Your task to perform on an android device: set an alarm Image 0: 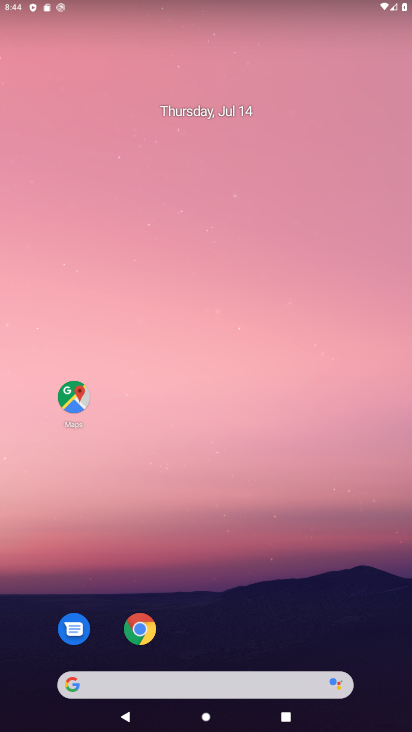
Step 0: drag from (244, 621) to (244, 28)
Your task to perform on an android device: set an alarm Image 1: 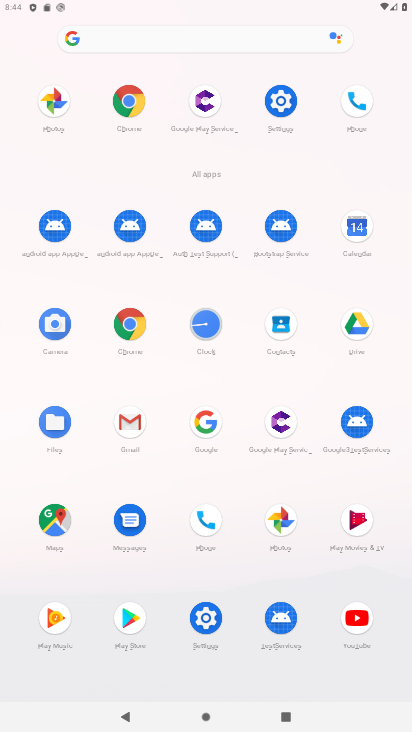
Step 1: click (201, 317)
Your task to perform on an android device: set an alarm Image 2: 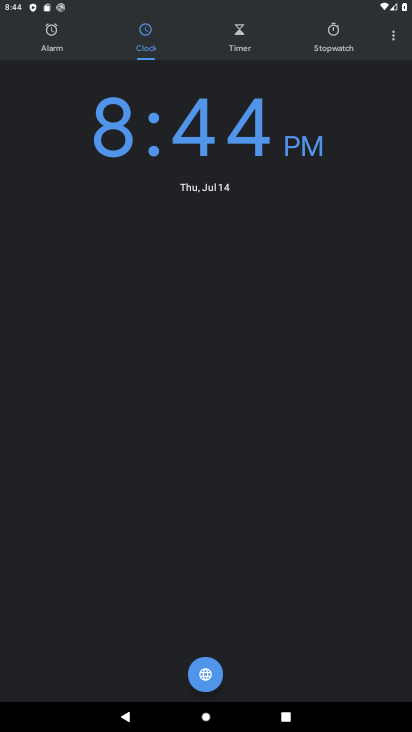
Step 2: click (54, 38)
Your task to perform on an android device: set an alarm Image 3: 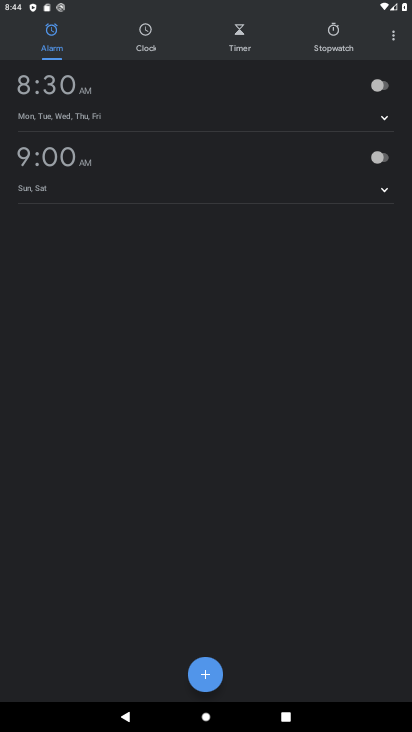
Step 3: click (203, 678)
Your task to perform on an android device: set an alarm Image 4: 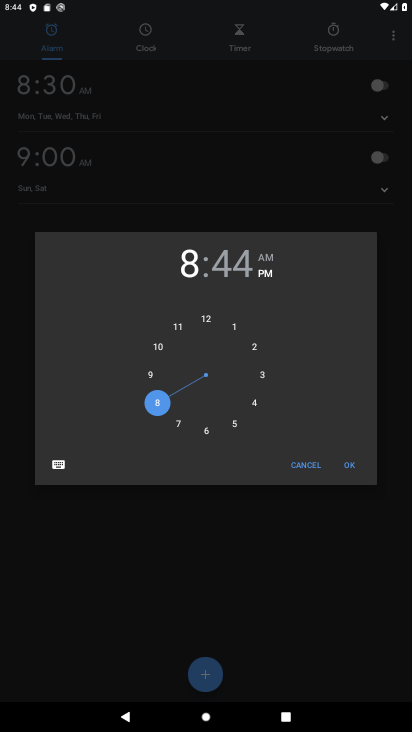
Step 4: click (353, 469)
Your task to perform on an android device: set an alarm Image 5: 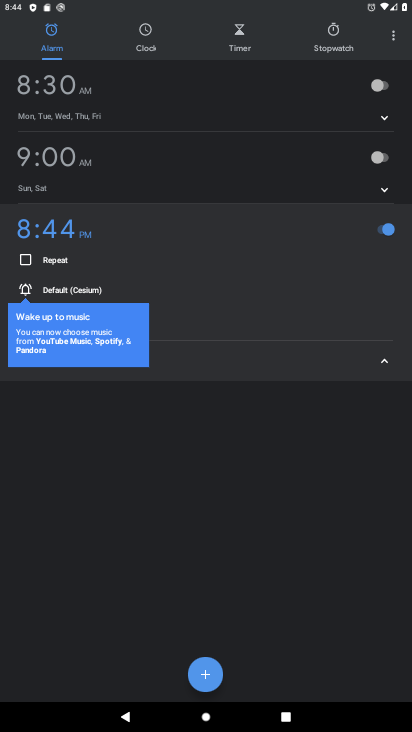
Step 5: click (383, 363)
Your task to perform on an android device: set an alarm Image 6: 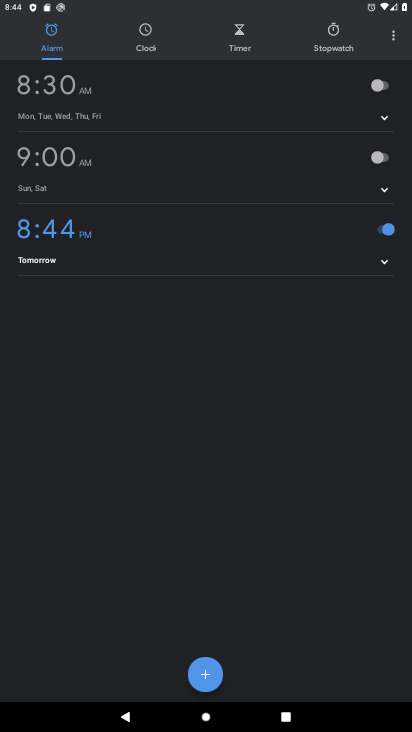
Step 6: task complete